Your task to perform on an android device: Go to privacy settings Image 0: 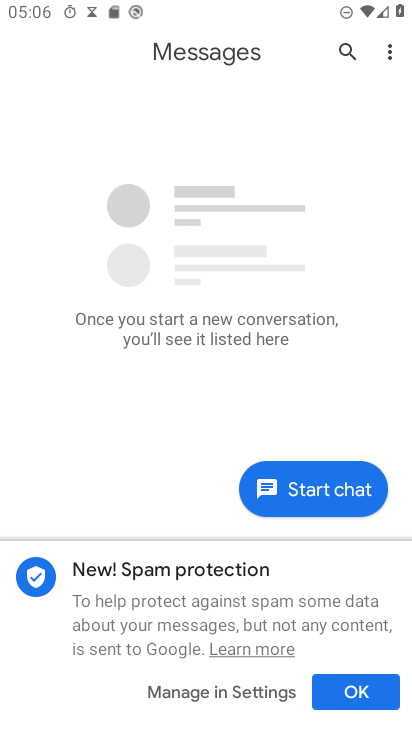
Step 0: press home button
Your task to perform on an android device: Go to privacy settings Image 1: 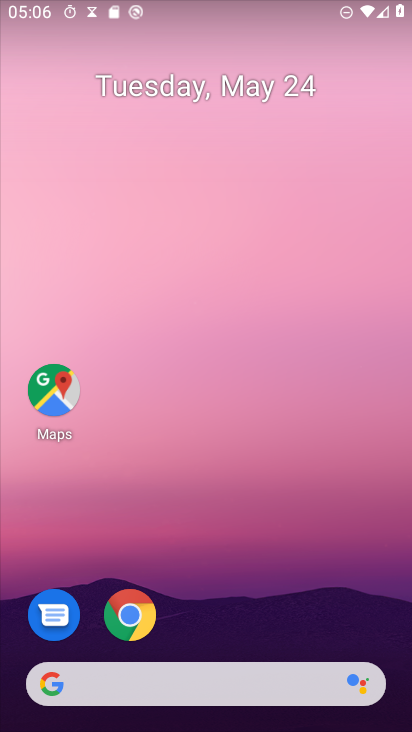
Step 1: drag from (317, 577) to (320, 28)
Your task to perform on an android device: Go to privacy settings Image 2: 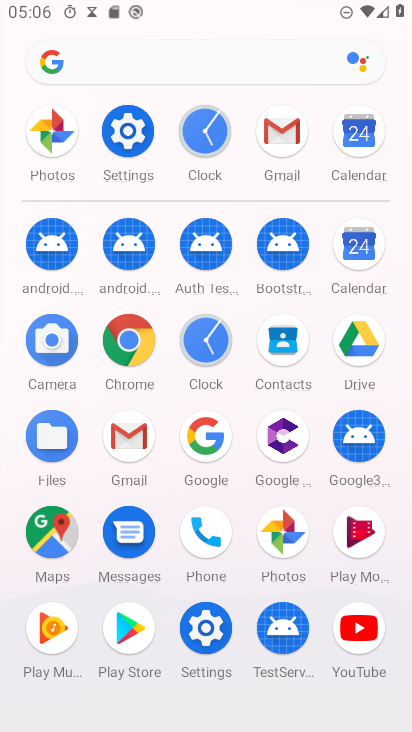
Step 2: click (134, 120)
Your task to perform on an android device: Go to privacy settings Image 3: 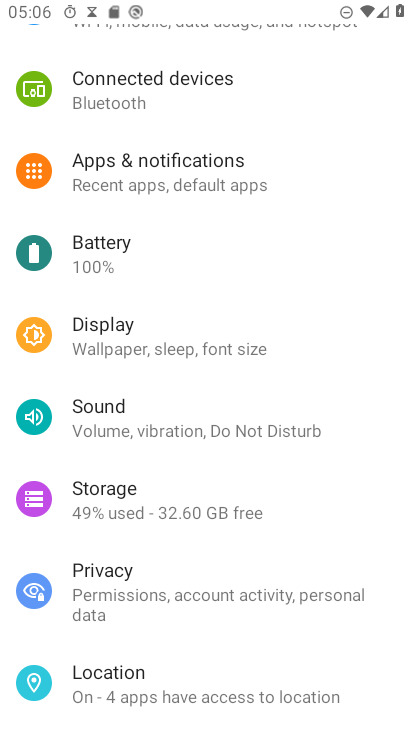
Step 3: click (124, 597)
Your task to perform on an android device: Go to privacy settings Image 4: 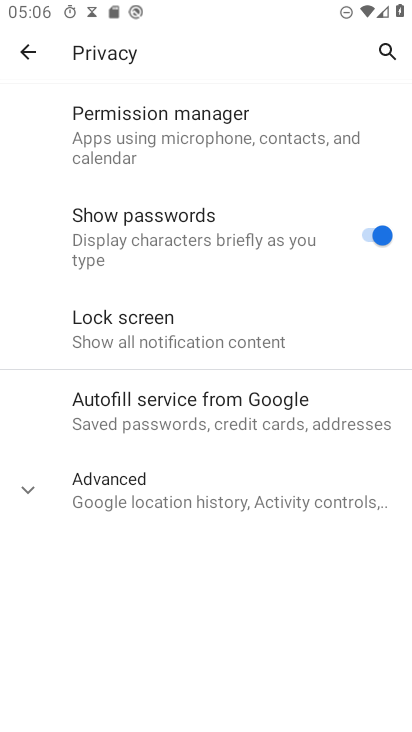
Step 4: task complete